Your task to perform on an android device: open chrome privacy settings Image 0: 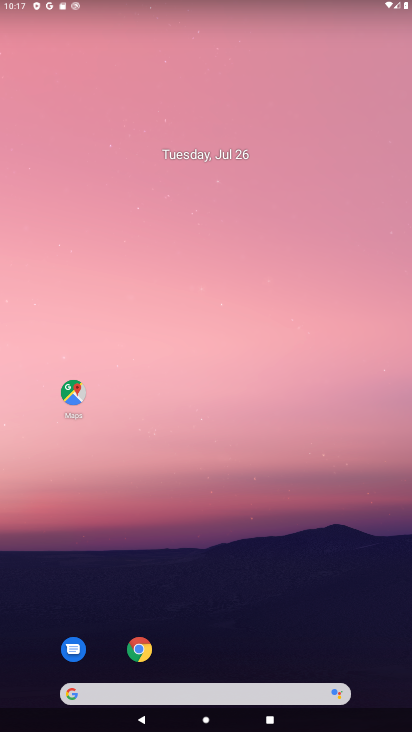
Step 0: click (140, 649)
Your task to perform on an android device: open chrome privacy settings Image 1: 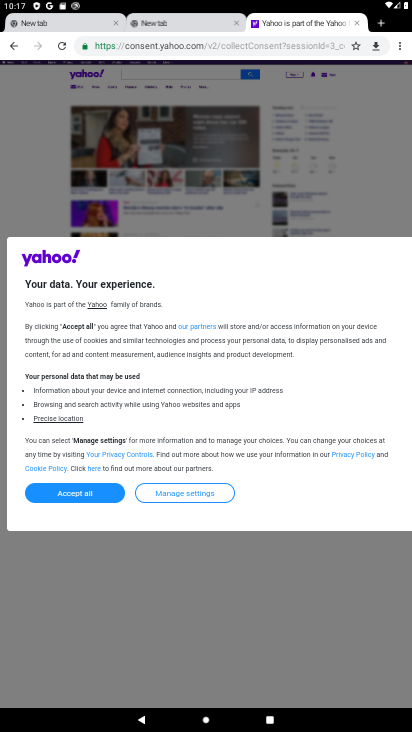
Step 1: click (396, 46)
Your task to perform on an android device: open chrome privacy settings Image 2: 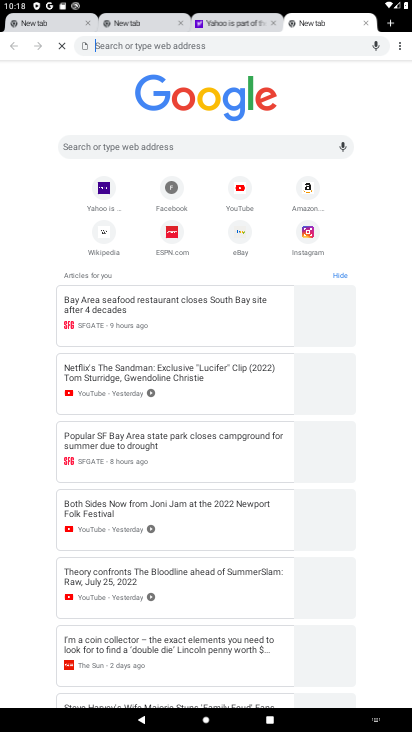
Step 2: click (398, 47)
Your task to perform on an android device: open chrome privacy settings Image 3: 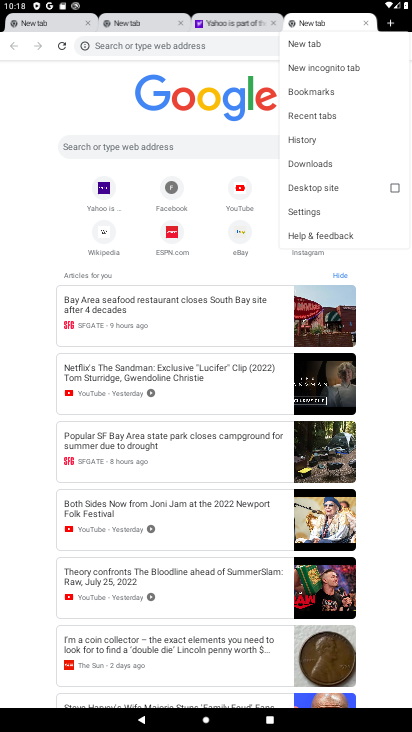
Step 3: click (296, 205)
Your task to perform on an android device: open chrome privacy settings Image 4: 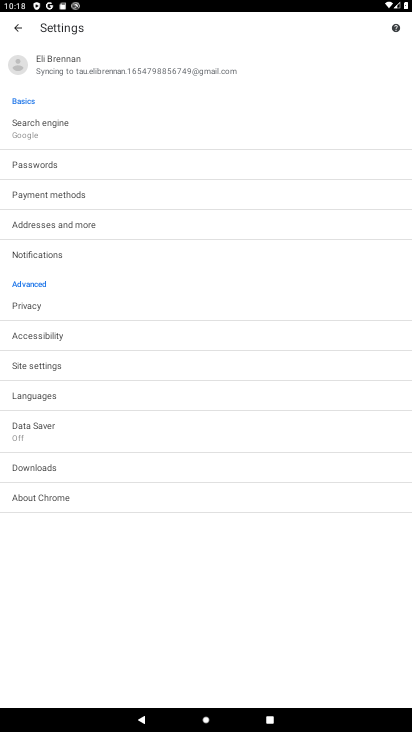
Step 4: click (22, 308)
Your task to perform on an android device: open chrome privacy settings Image 5: 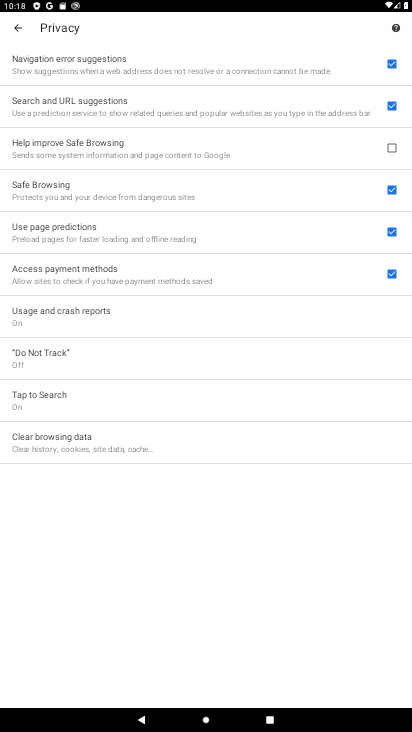
Step 5: click (99, 446)
Your task to perform on an android device: open chrome privacy settings Image 6: 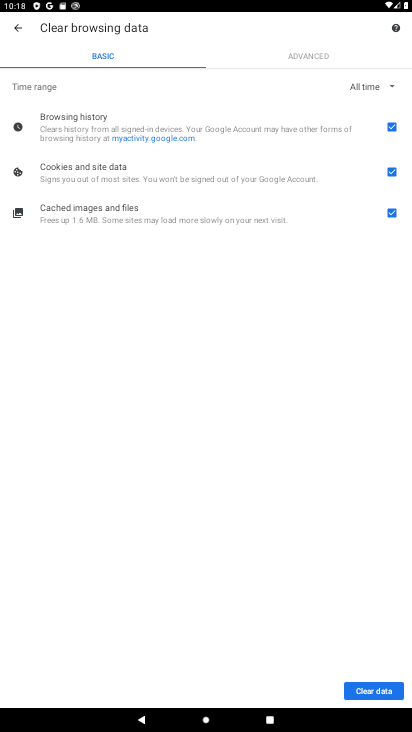
Step 6: task complete